Your task to perform on an android device: Open Reddit.com Image 0: 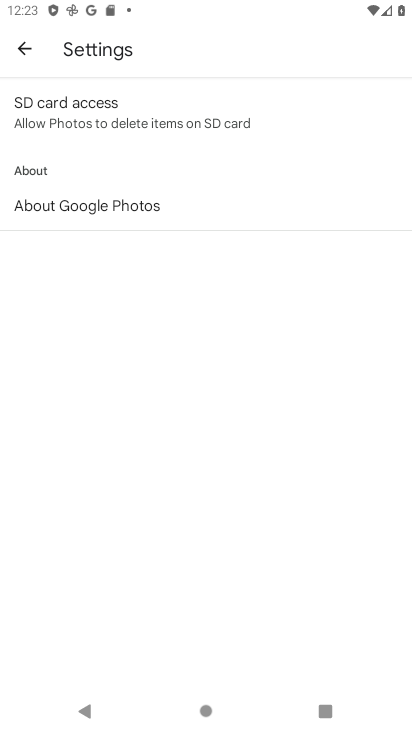
Step 0: press home button
Your task to perform on an android device: Open Reddit.com Image 1: 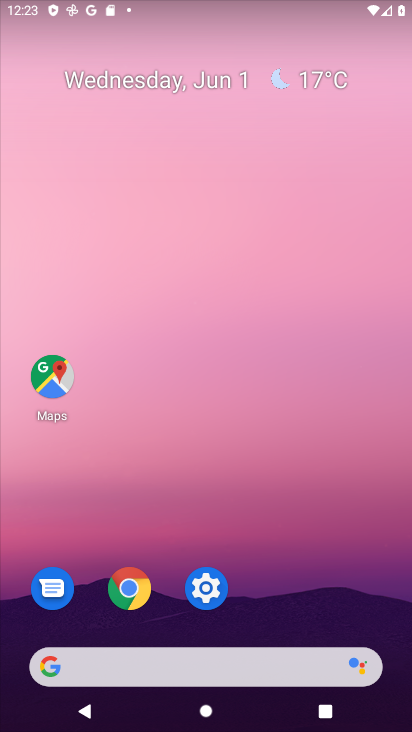
Step 1: drag from (237, 685) to (217, 174)
Your task to perform on an android device: Open Reddit.com Image 2: 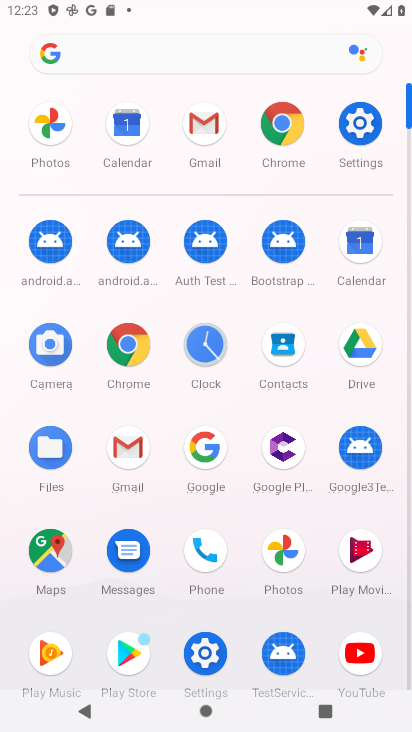
Step 2: click (293, 141)
Your task to perform on an android device: Open Reddit.com Image 3: 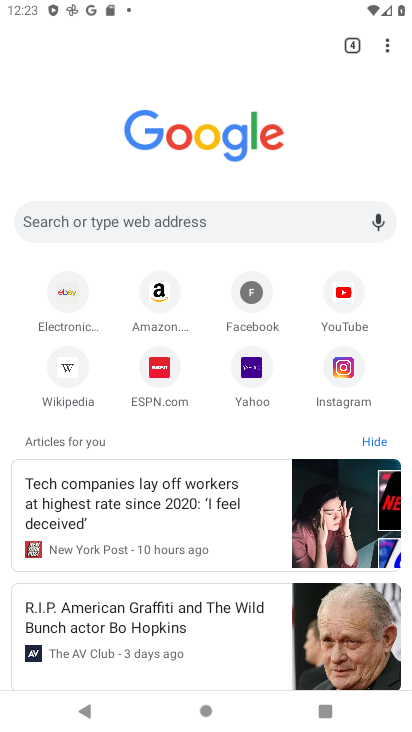
Step 3: click (135, 215)
Your task to perform on an android device: Open Reddit.com Image 4: 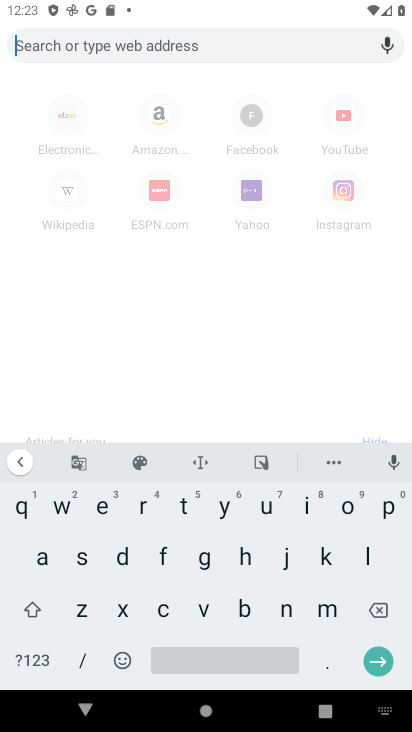
Step 4: click (142, 501)
Your task to perform on an android device: Open Reddit.com Image 5: 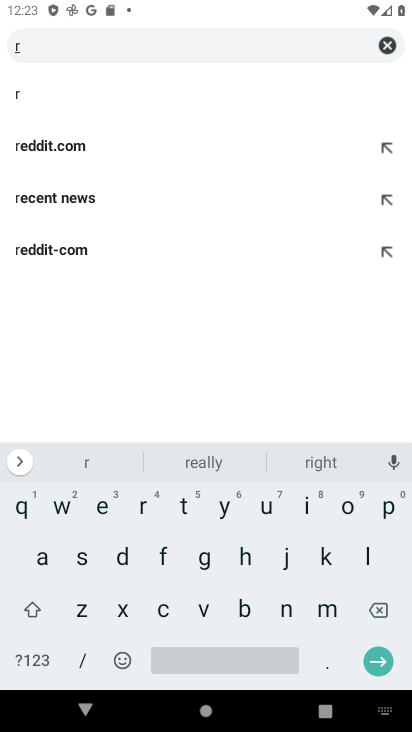
Step 5: click (66, 153)
Your task to perform on an android device: Open Reddit.com Image 6: 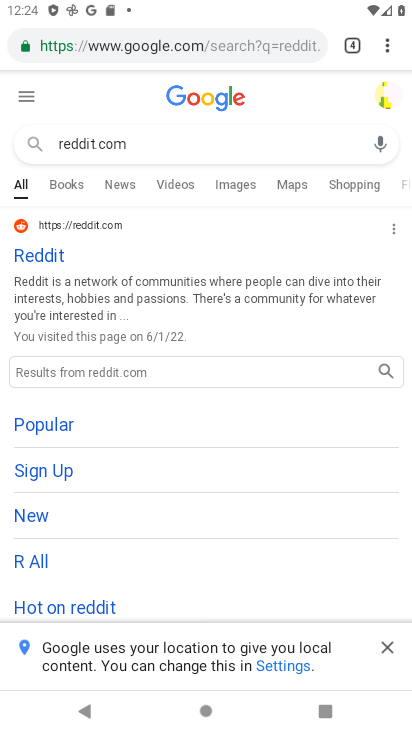
Step 6: click (25, 259)
Your task to perform on an android device: Open Reddit.com Image 7: 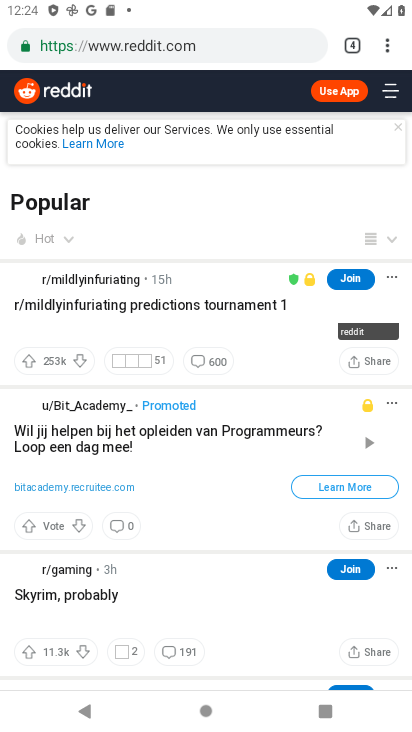
Step 7: task complete